Your task to perform on an android device: allow notifications from all sites in the chrome app Image 0: 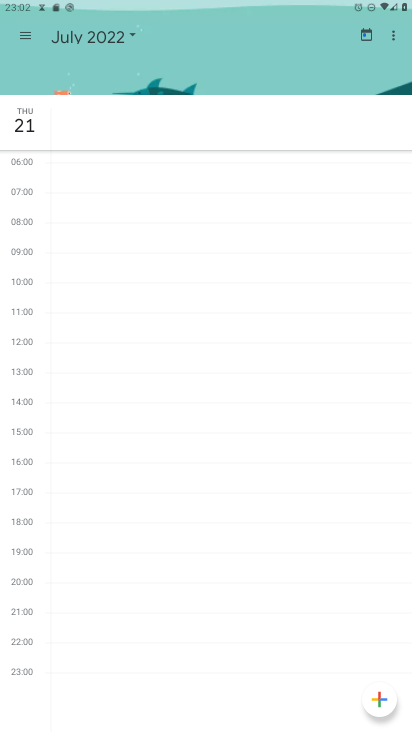
Step 0: press home button
Your task to perform on an android device: allow notifications from all sites in the chrome app Image 1: 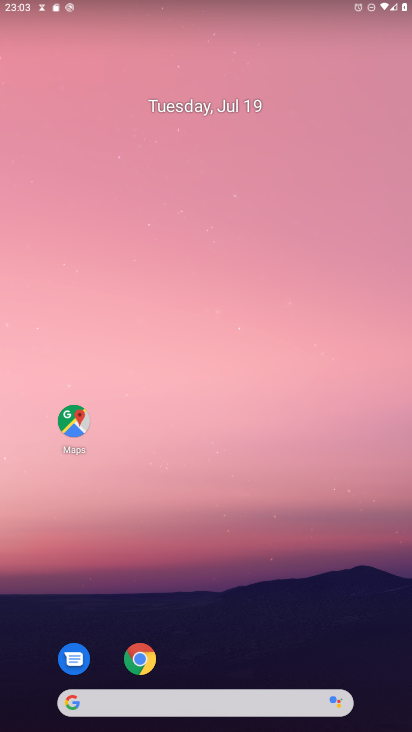
Step 1: click (265, 150)
Your task to perform on an android device: allow notifications from all sites in the chrome app Image 2: 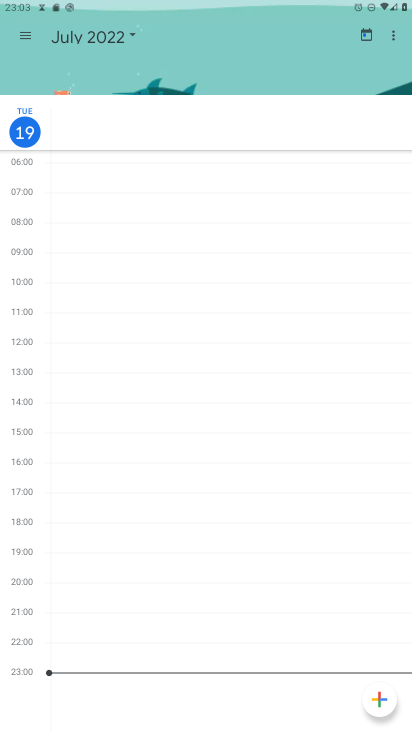
Step 2: press home button
Your task to perform on an android device: allow notifications from all sites in the chrome app Image 3: 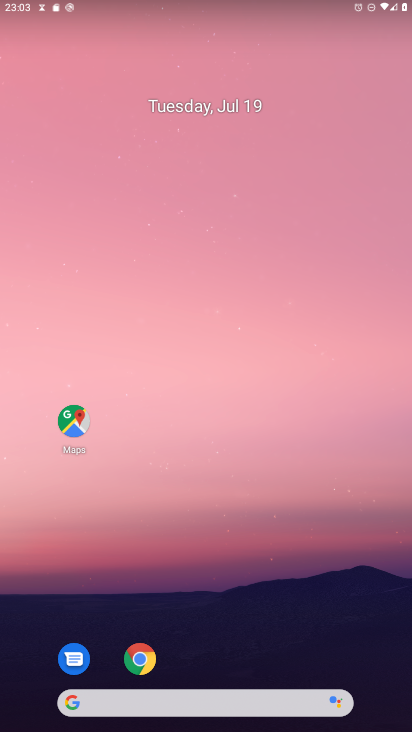
Step 3: click (205, 352)
Your task to perform on an android device: allow notifications from all sites in the chrome app Image 4: 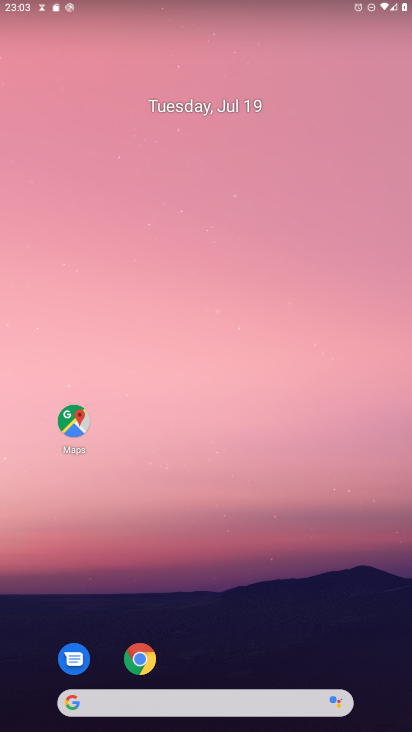
Step 4: drag from (184, 623) to (222, 130)
Your task to perform on an android device: allow notifications from all sites in the chrome app Image 5: 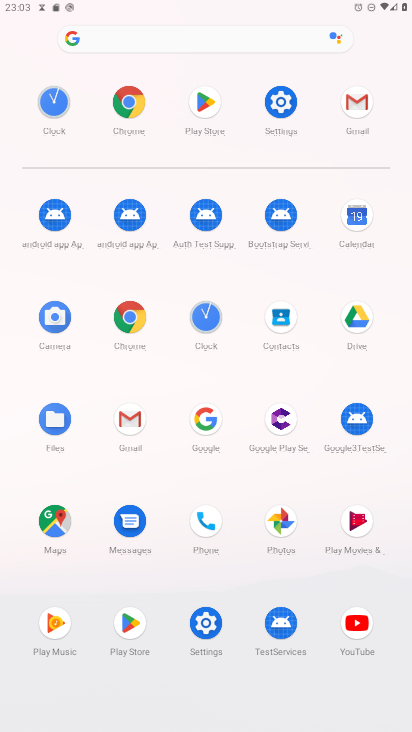
Step 5: click (133, 89)
Your task to perform on an android device: allow notifications from all sites in the chrome app Image 6: 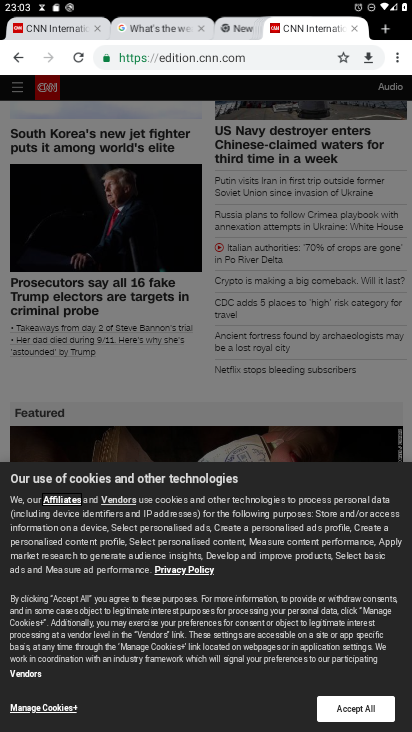
Step 6: click (395, 57)
Your task to perform on an android device: allow notifications from all sites in the chrome app Image 7: 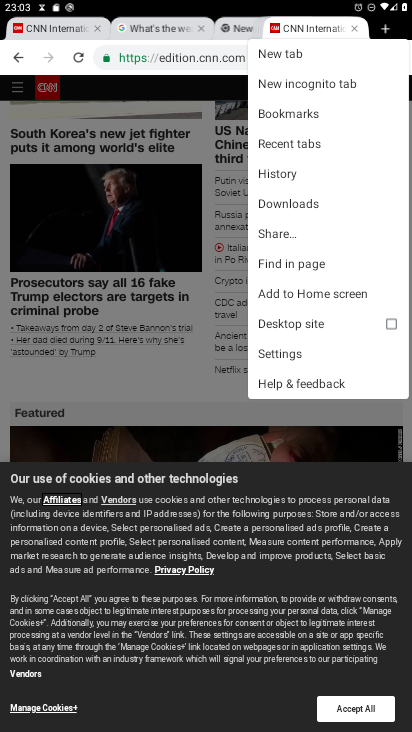
Step 7: click (284, 343)
Your task to perform on an android device: allow notifications from all sites in the chrome app Image 8: 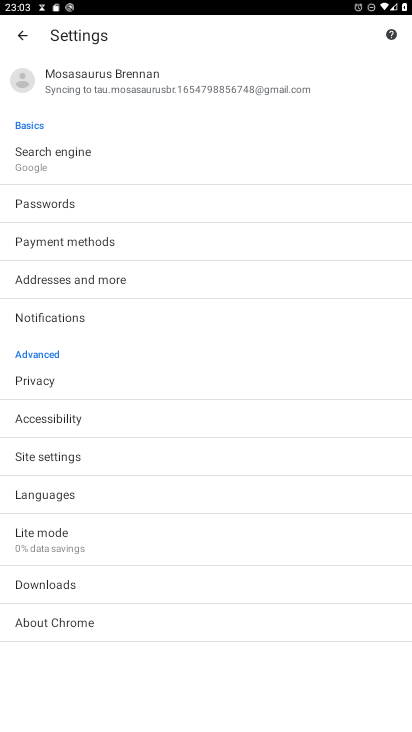
Step 8: click (71, 457)
Your task to perform on an android device: allow notifications from all sites in the chrome app Image 9: 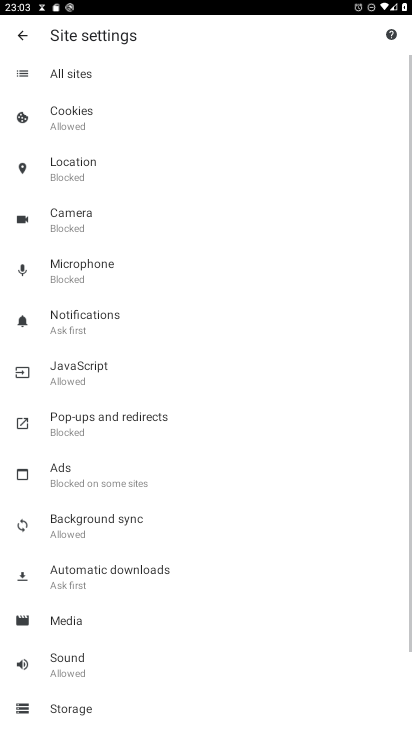
Step 9: click (68, 99)
Your task to perform on an android device: allow notifications from all sites in the chrome app Image 10: 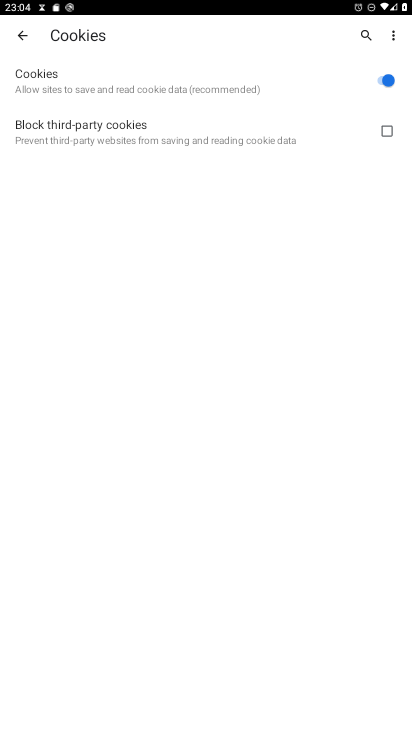
Step 10: click (29, 29)
Your task to perform on an android device: allow notifications from all sites in the chrome app Image 11: 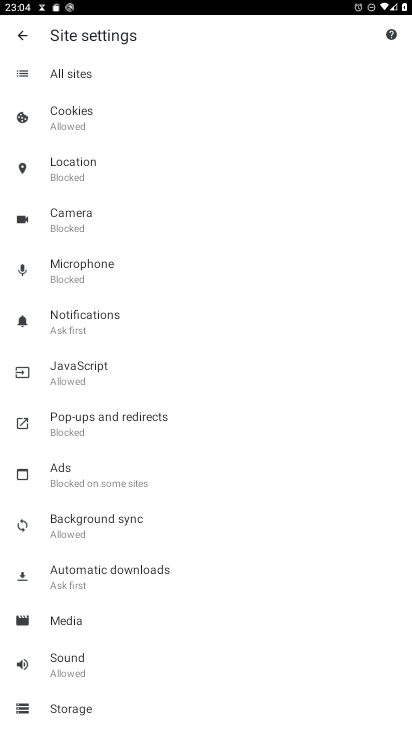
Step 11: click (69, 180)
Your task to perform on an android device: allow notifications from all sites in the chrome app Image 12: 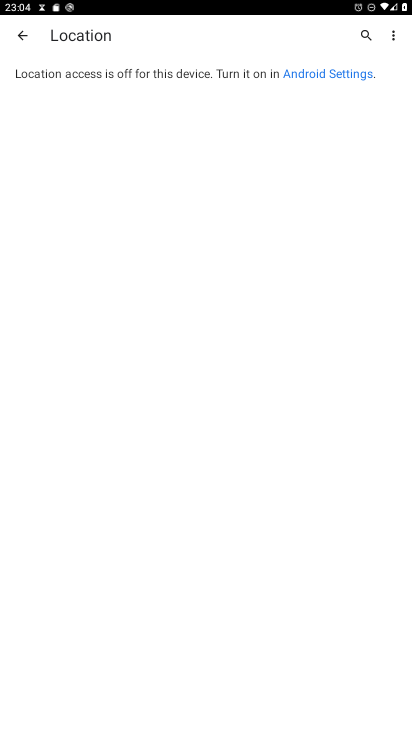
Step 12: click (25, 27)
Your task to perform on an android device: allow notifications from all sites in the chrome app Image 13: 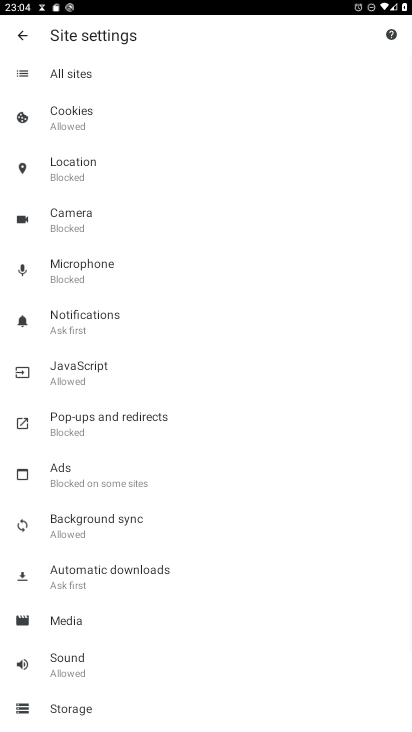
Step 13: click (70, 282)
Your task to perform on an android device: allow notifications from all sites in the chrome app Image 14: 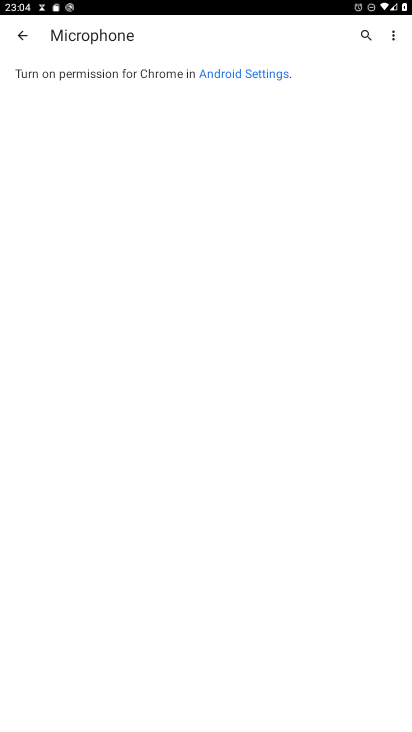
Step 14: click (34, 42)
Your task to perform on an android device: allow notifications from all sites in the chrome app Image 15: 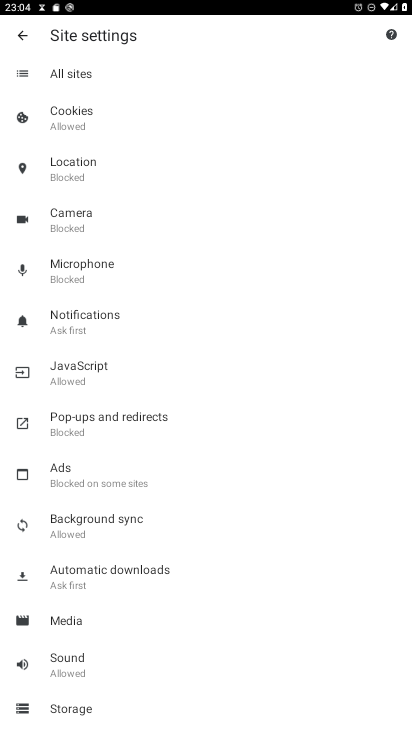
Step 15: task complete